Your task to perform on an android device: turn off wifi Image 0: 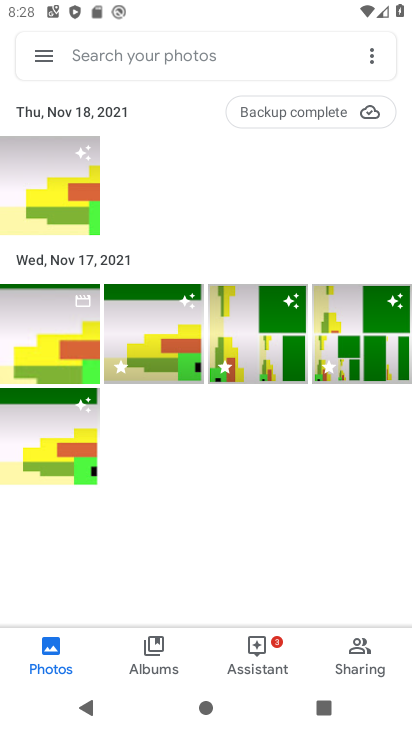
Step 0: press home button
Your task to perform on an android device: turn off wifi Image 1: 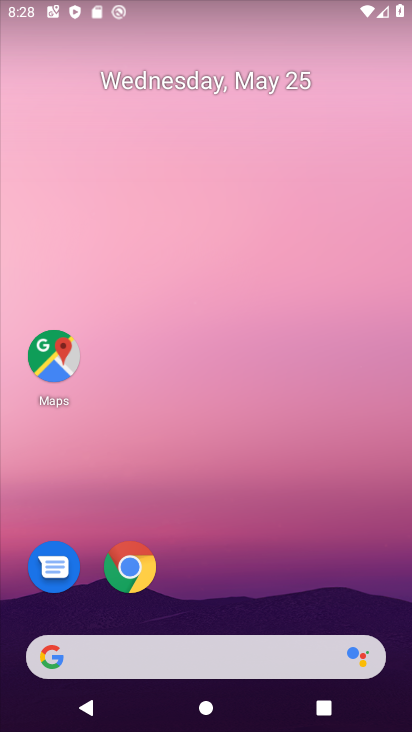
Step 1: drag from (278, 472) to (189, 5)
Your task to perform on an android device: turn off wifi Image 2: 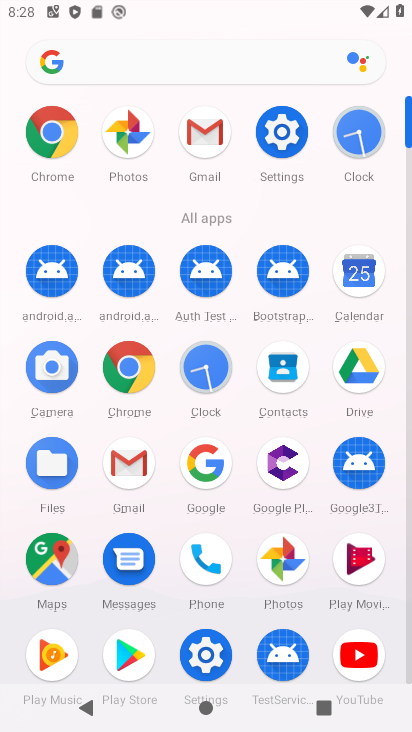
Step 2: click (282, 131)
Your task to perform on an android device: turn off wifi Image 3: 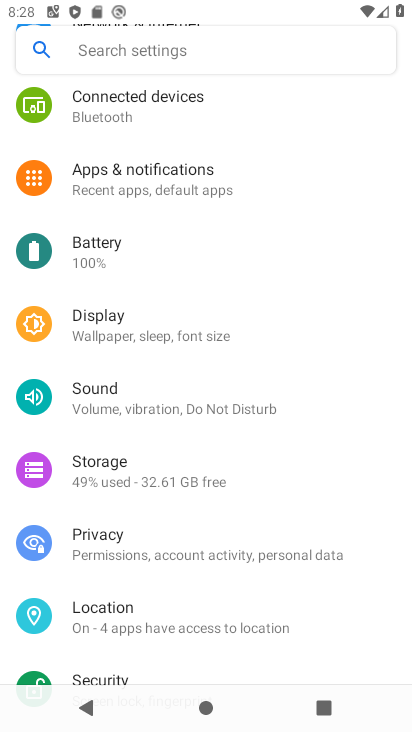
Step 3: drag from (264, 189) to (293, 400)
Your task to perform on an android device: turn off wifi Image 4: 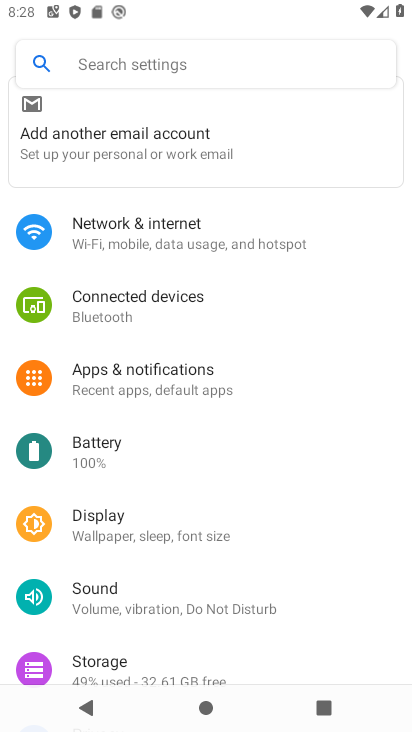
Step 4: click (212, 241)
Your task to perform on an android device: turn off wifi Image 5: 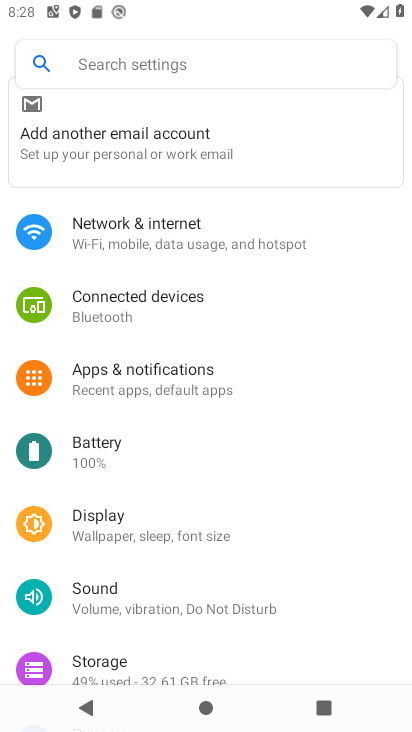
Step 5: click (212, 229)
Your task to perform on an android device: turn off wifi Image 6: 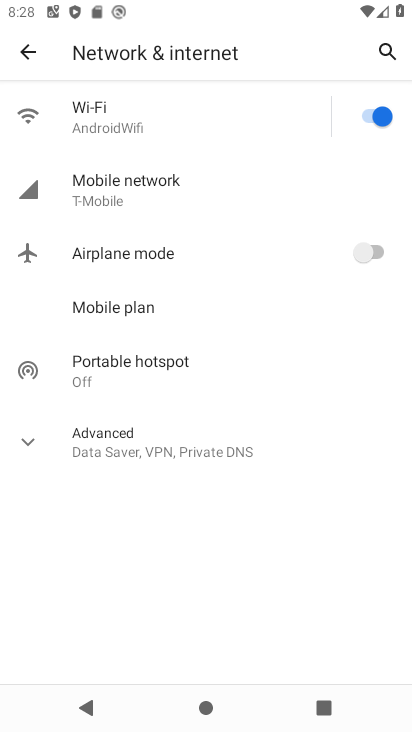
Step 6: click (371, 114)
Your task to perform on an android device: turn off wifi Image 7: 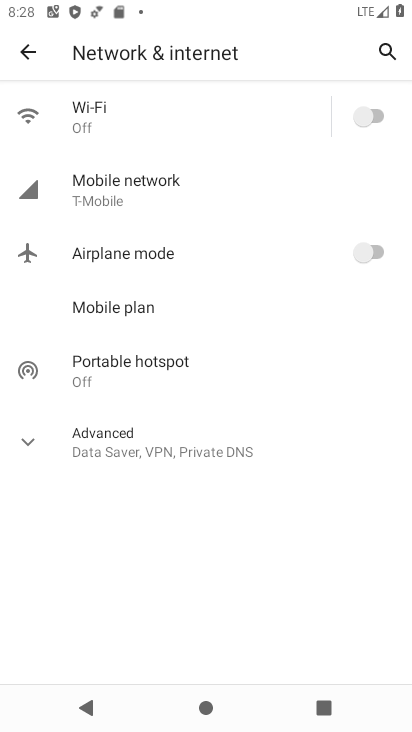
Step 7: task complete